Your task to perform on an android device: Go to accessibility settings Image 0: 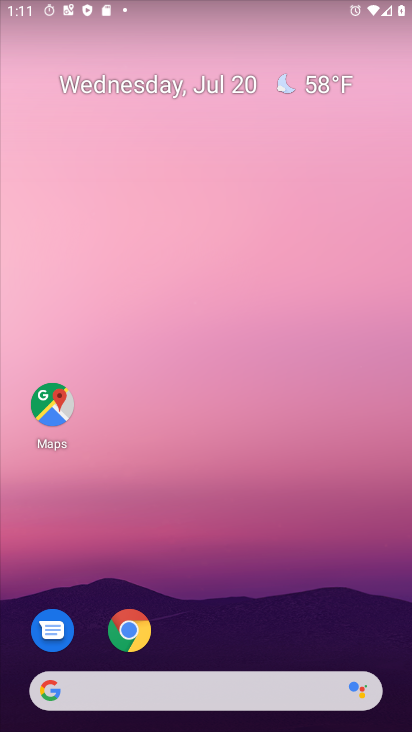
Step 0: press home button
Your task to perform on an android device: Go to accessibility settings Image 1: 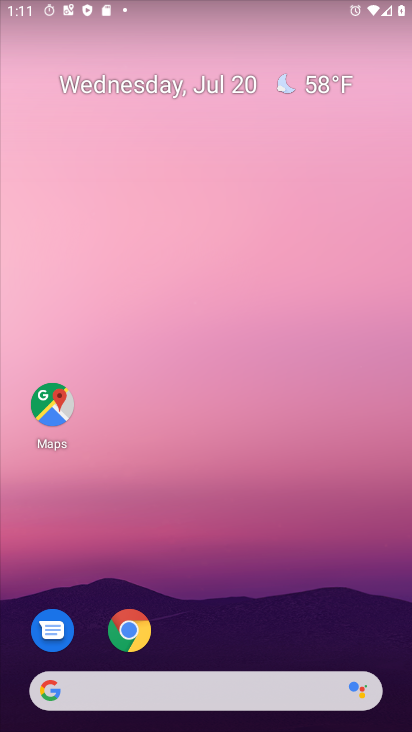
Step 1: drag from (265, 508) to (343, 217)
Your task to perform on an android device: Go to accessibility settings Image 2: 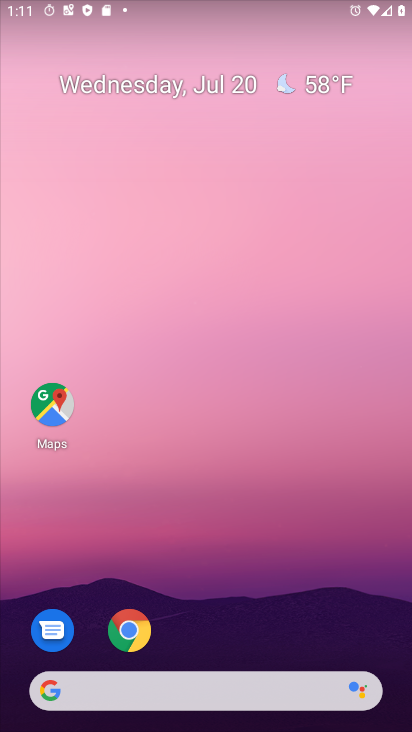
Step 2: drag from (167, 687) to (303, 123)
Your task to perform on an android device: Go to accessibility settings Image 3: 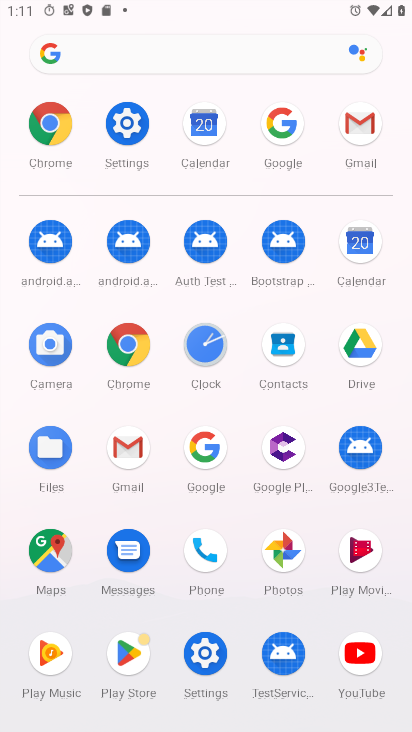
Step 3: click (131, 130)
Your task to perform on an android device: Go to accessibility settings Image 4: 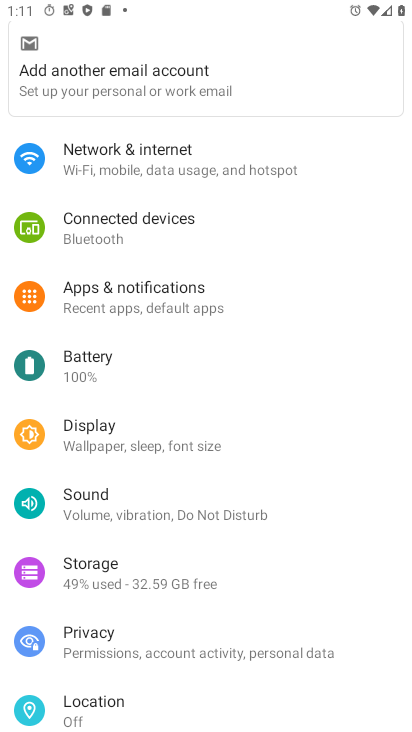
Step 4: drag from (190, 626) to (364, 135)
Your task to perform on an android device: Go to accessibility settings Image 5: 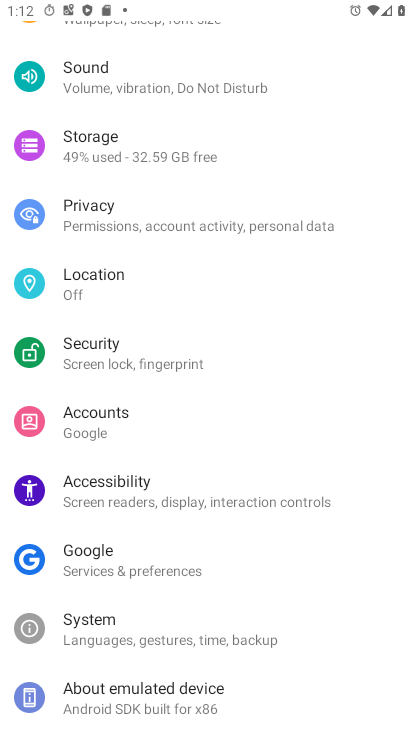
Step 5: click (133, 487)
Your task to perform on an android device: Go to accessibility settings Image 6: 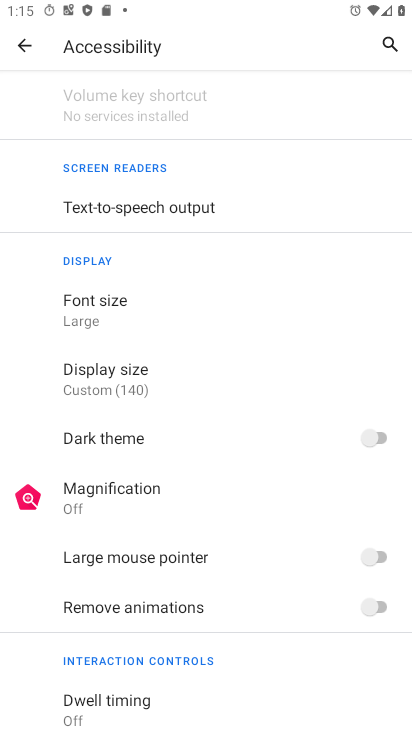
Step 6: task complete